Your task to perform on an android device: When is my next meeting? Image 0: 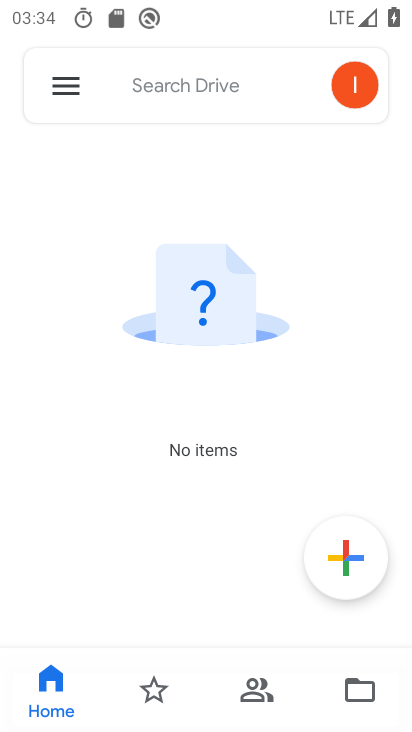
Step 0: press home button
Your task to perform on an android device: When is my next meeting? Image 1: 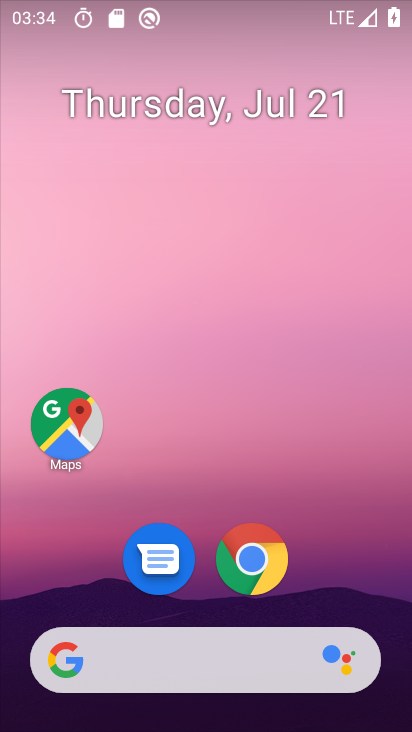
Step 1: drag from (338, 565) to (406, 73)
Your task to perform on an android device: When is my next meeting? Image 2: 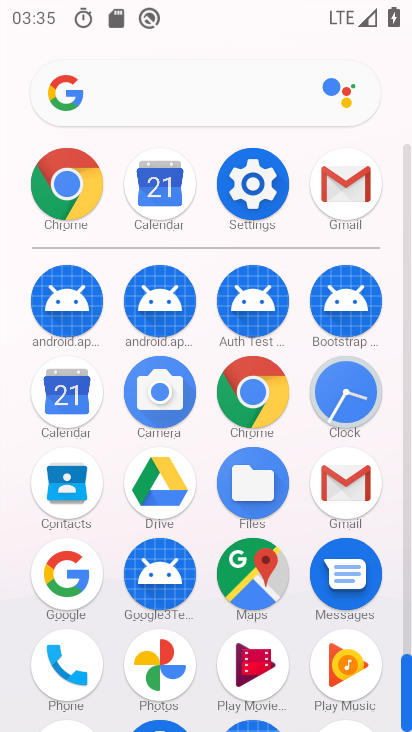
Step 2: click (77, 394)
Your task to perform on an android device: When is my next meeting? Image 3: 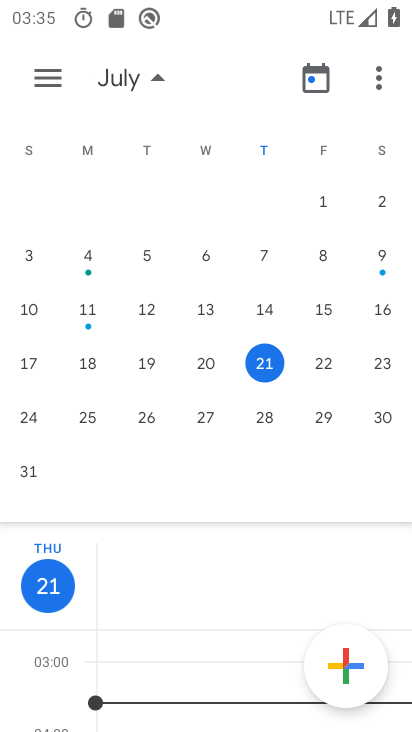
Step 3: task complete